Your task to perform on an android device: Check the weather Image 0: 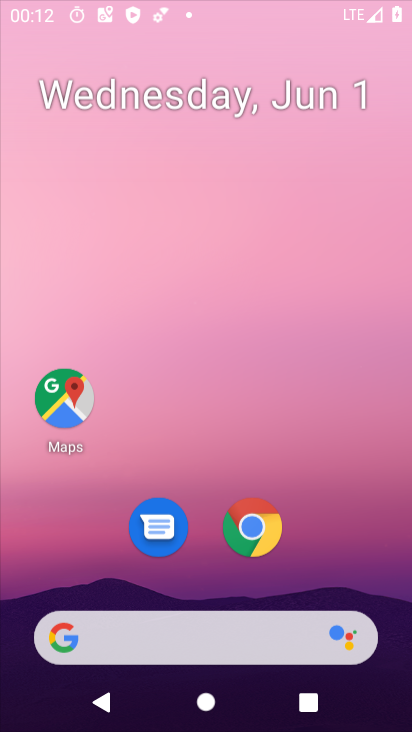
Step 0: click (318, 83)
Your task to perform on an android device: Check the weather Image 1: 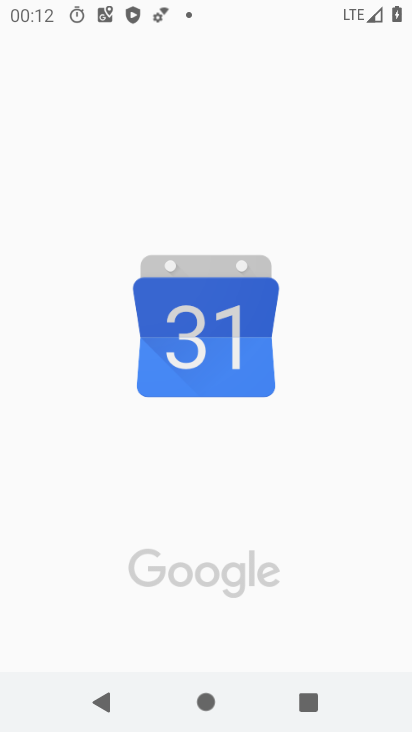
Step 1: drag from (198, 584) to (285, 79)
Your task to perform on an android device: Check the weather Image 2: 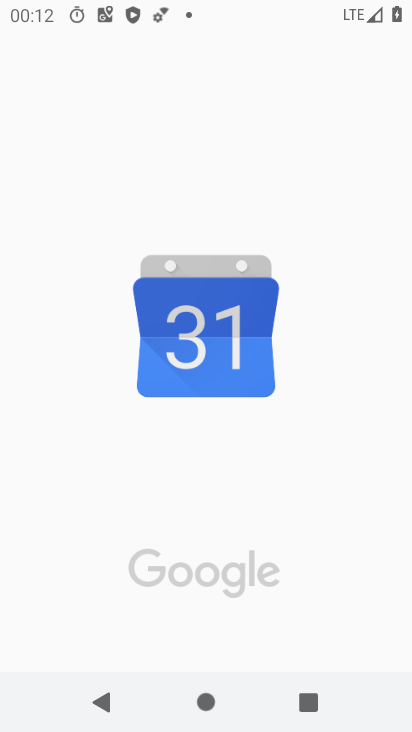
Step 2: press home button
Your task to perform on an android device: Check the weather Image 3: 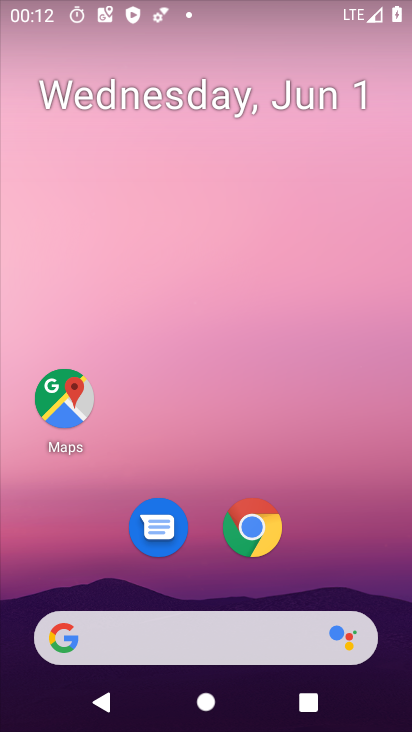
Step 3: drag from (189, 542) to (191, 141)
Your task to perform on an android device: Check the weather Image 4: 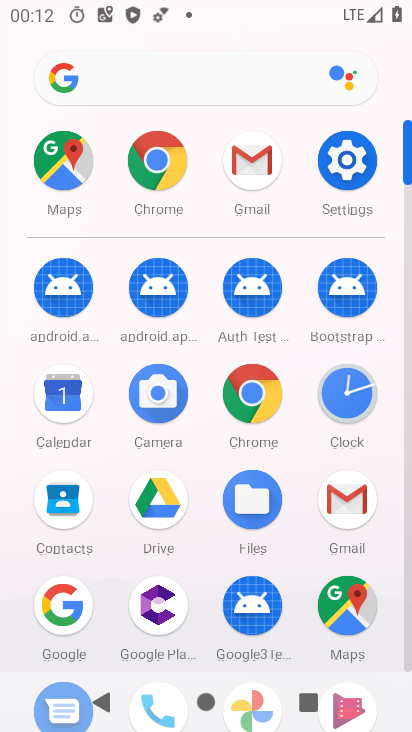
Step 4: drag from (204, 388) to (269, 20)
Your task to perform on an android device: Check the weather Image 5: 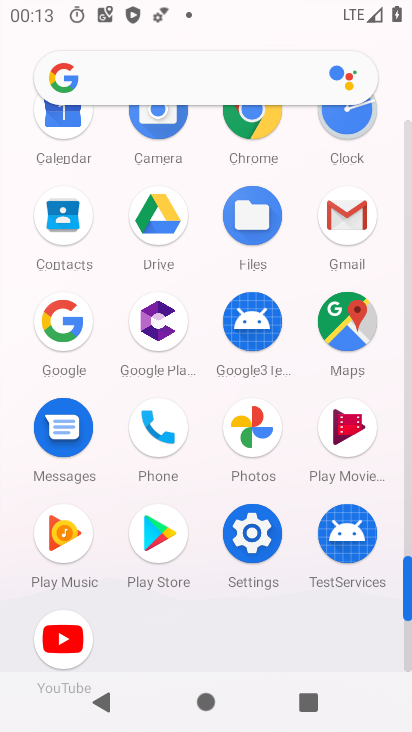
Step 5: click (180, 81)
Your task to perform on an android device: Check the weather Image 6: 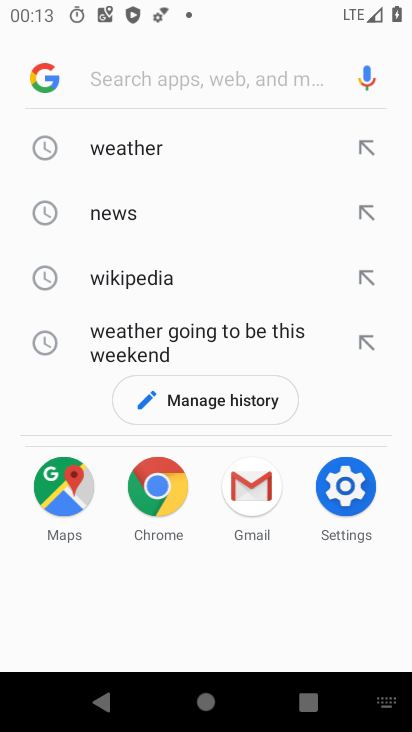
Step 6: click (122, 143)
Your task to perform on an android device: Check the weather Image 7: 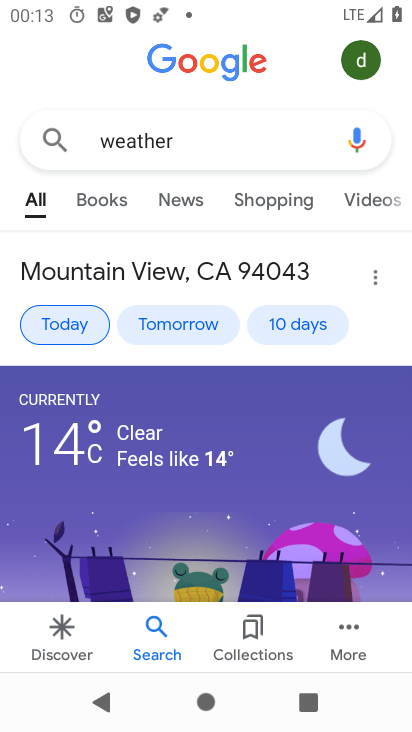
Step 7: task complete